Your task to perform on an android device: empty trash in the gmail app Image 0: 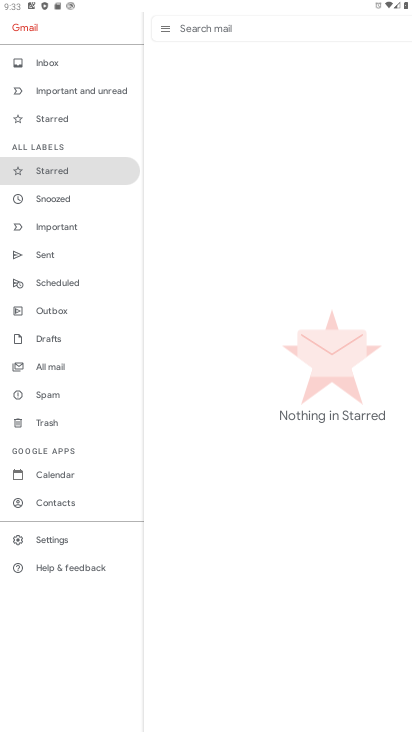
Step 0: press home button
Your task to perform on an android device: empty trash in the gmail app Image 1: 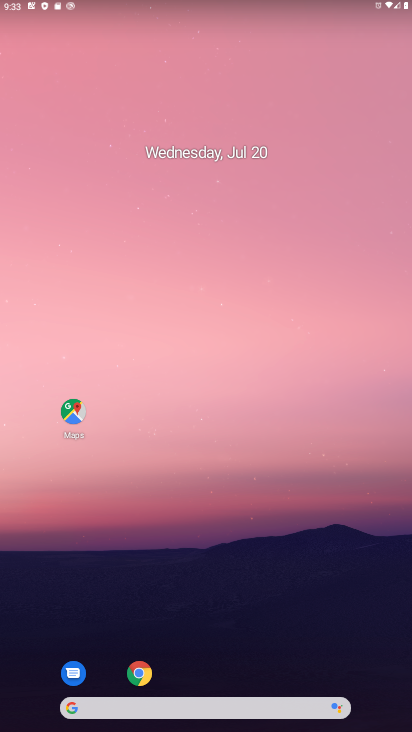
Step 1: drag from (227, 709) to (223, 167)
Your task to perform on an android device: empty trash in the gmail app Image 2: 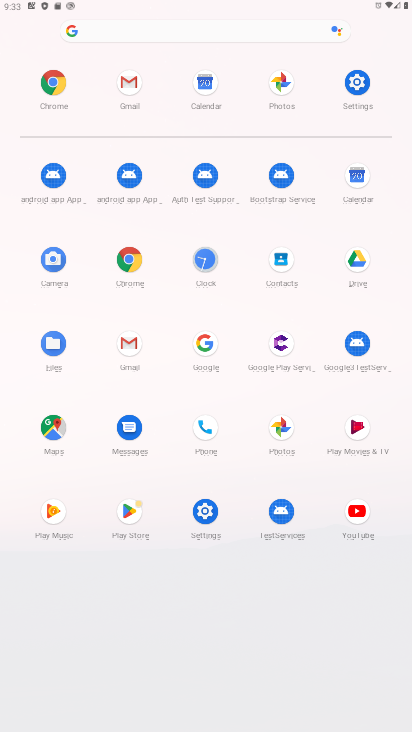
Step 2: click (128, 343)
Your task to perform on an android device: empty trash in the gmail app Image 3: 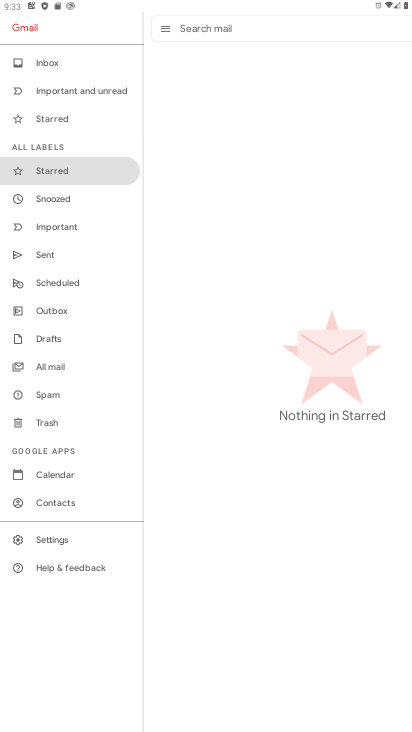
Step 3: click (43, 421)
Your task to perform on an android device: empty trash in the gmail app Image 4: 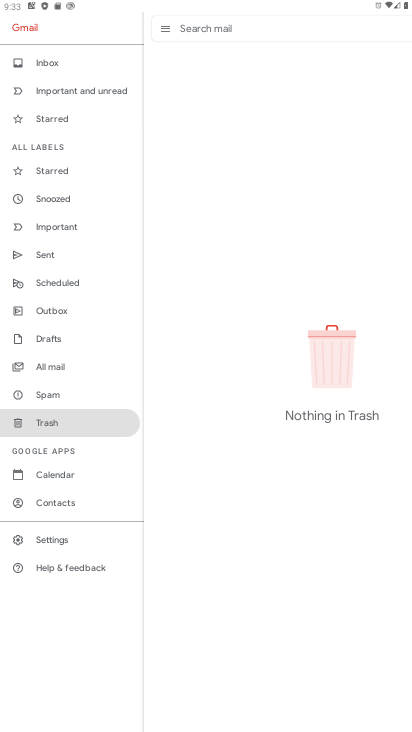
Step 4: task complete